Your task to perform on an android device: uninstall "Expedia: Hotels, Flights & Car" Image 0: 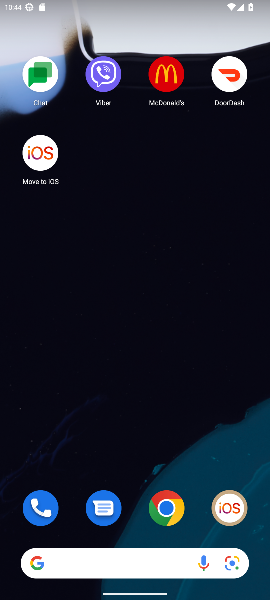
Step 0: drag from (187, 549) to (226, 42)
Your task to perform on an android device: uninstall "Expedia: Hotels, Flights & Car" Image 1: 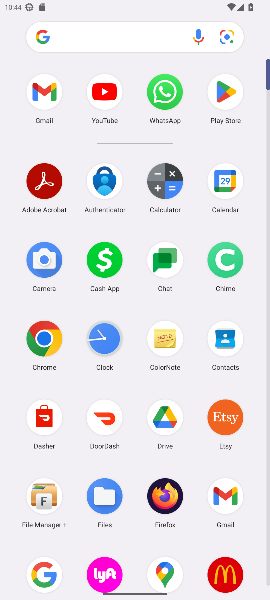
Step 1: click (227, 85)
Your task to perform on an android device: uninstall "Expedia: Hotels, Flights & Car" Image 2: 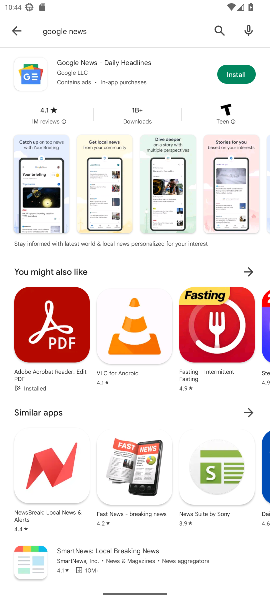
Step 2: click (217, 32)
Your task to perform on an android device: uninstall "Expedia: Hotels, Flights & Car" Image 3: 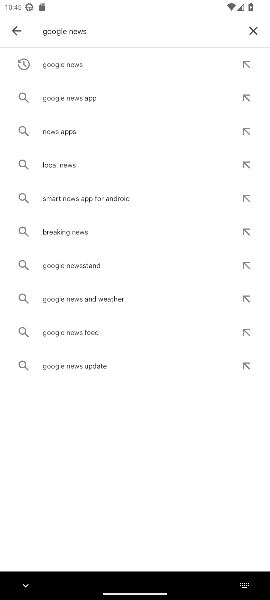
Step 3: type "expedia: hotels, flights & car"
Your task to perform on an android device: uninstall "Expedia: Hotels, Flights & Car" Image 4: 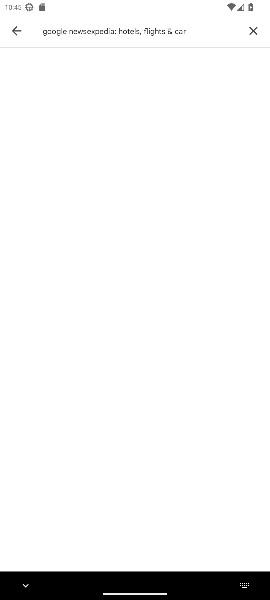
Step 4: click (255, 25)
Your task to perform on an android device: uninstall "Expedia: Hotels, Flights & Car" Image 5: 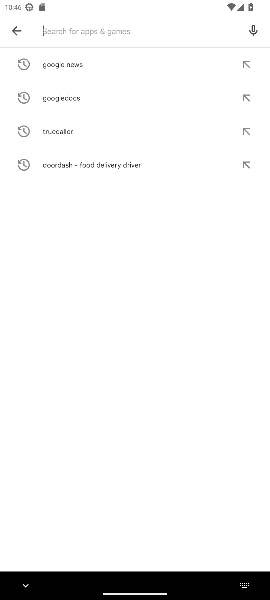
Step 5: type "expedia: hotels, flights & car"
Your task to perform on an android device: uninstall "Expedia: Hotels, Flights & Car" Image 6: 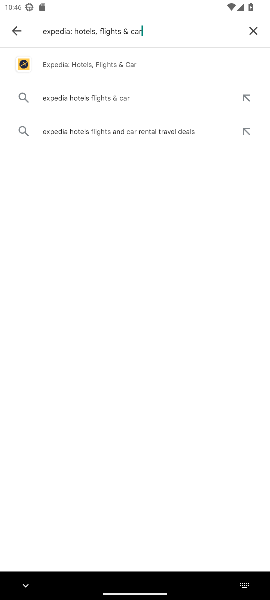
Step 6: click (130, 69)
Your task to perform on an android device: uninstall "Expedia: Hotels, Flights & Car" Image 7: 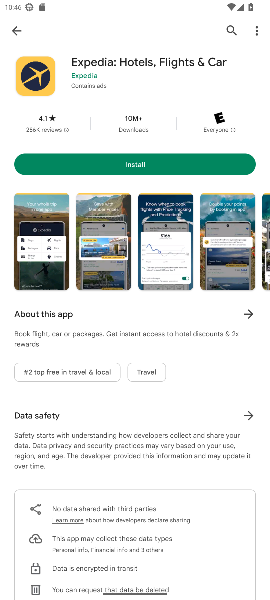
Step 7: task complete